Your task to perform on an android device: Go to Reddit.com Image 0: 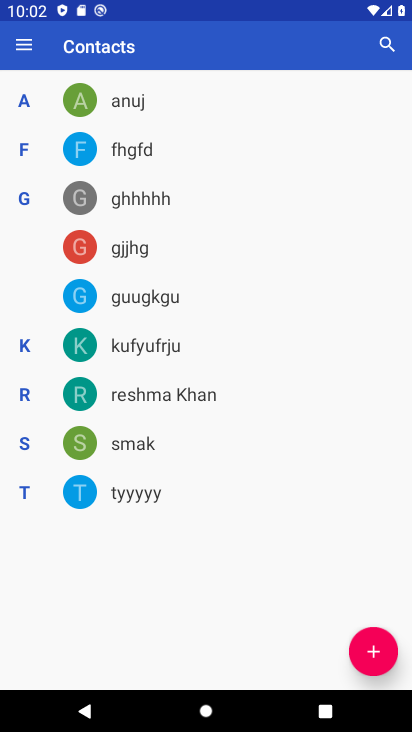
Step 0: press home button
Your task to perform on an android device: Go to Reddit.com Image 1: 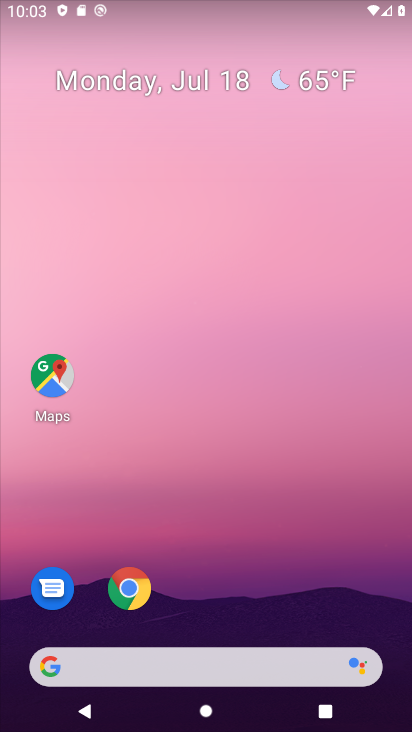
Step 1: click (53, 664)
Your task to perform on an android device: Go to Reddit.com Image 2: 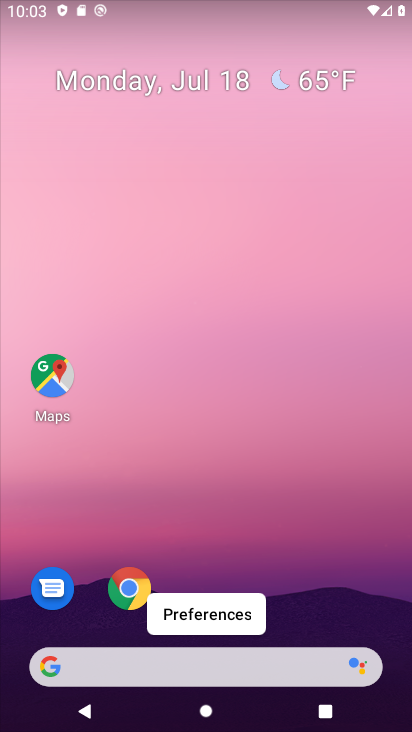
Step 2: click (54, 667)
Your task to perform on an android device: Go to Reddit.com Image 3: 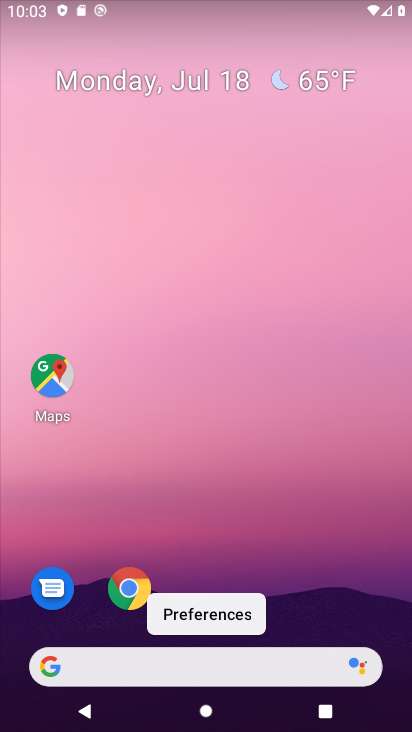
Step 3: drag from (366, 593) to (54, 667)
Your task to perform on an android device: Go to Reddit.com Image 4: 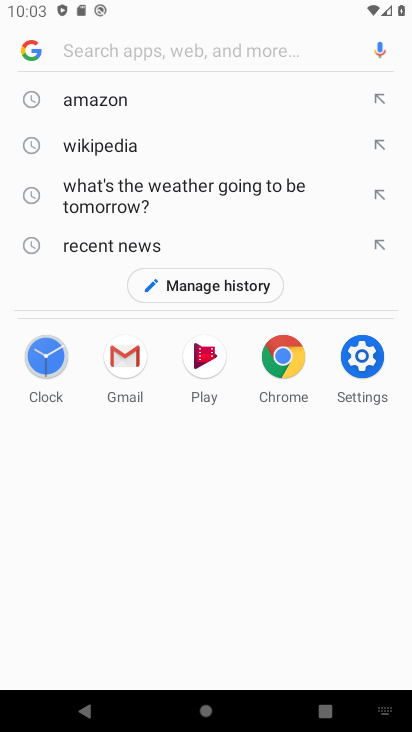
Step 4: type " Reddit.com"
Your task to perform on an android device: Go to Reddit.com Image 5: 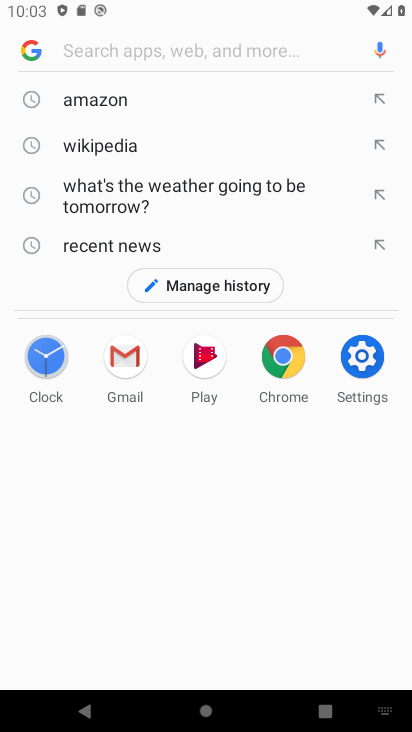
Step 5: click (106, 55)
Your task to perform on an android device: Go to Reddit.com Image 6: 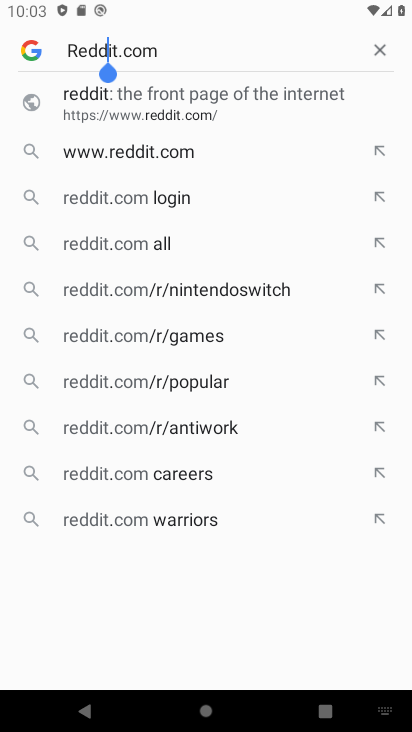
Step 6: press enter
Your task to perform on an android device: Go to Reddit.com Image 7: 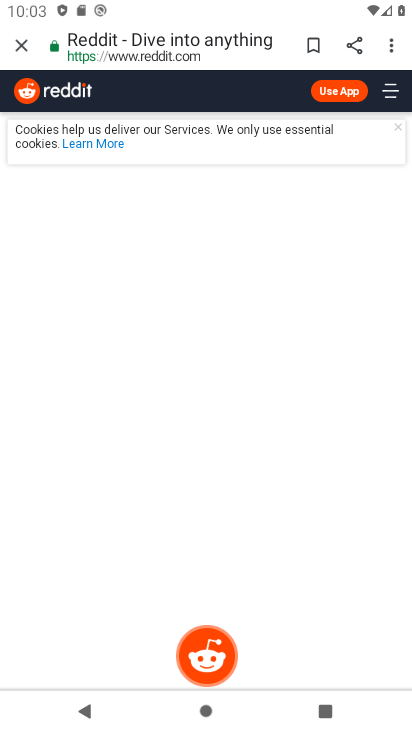
Step 7: task complete